Your task to perform on an android device: change the clock display to show seconds Image 0: 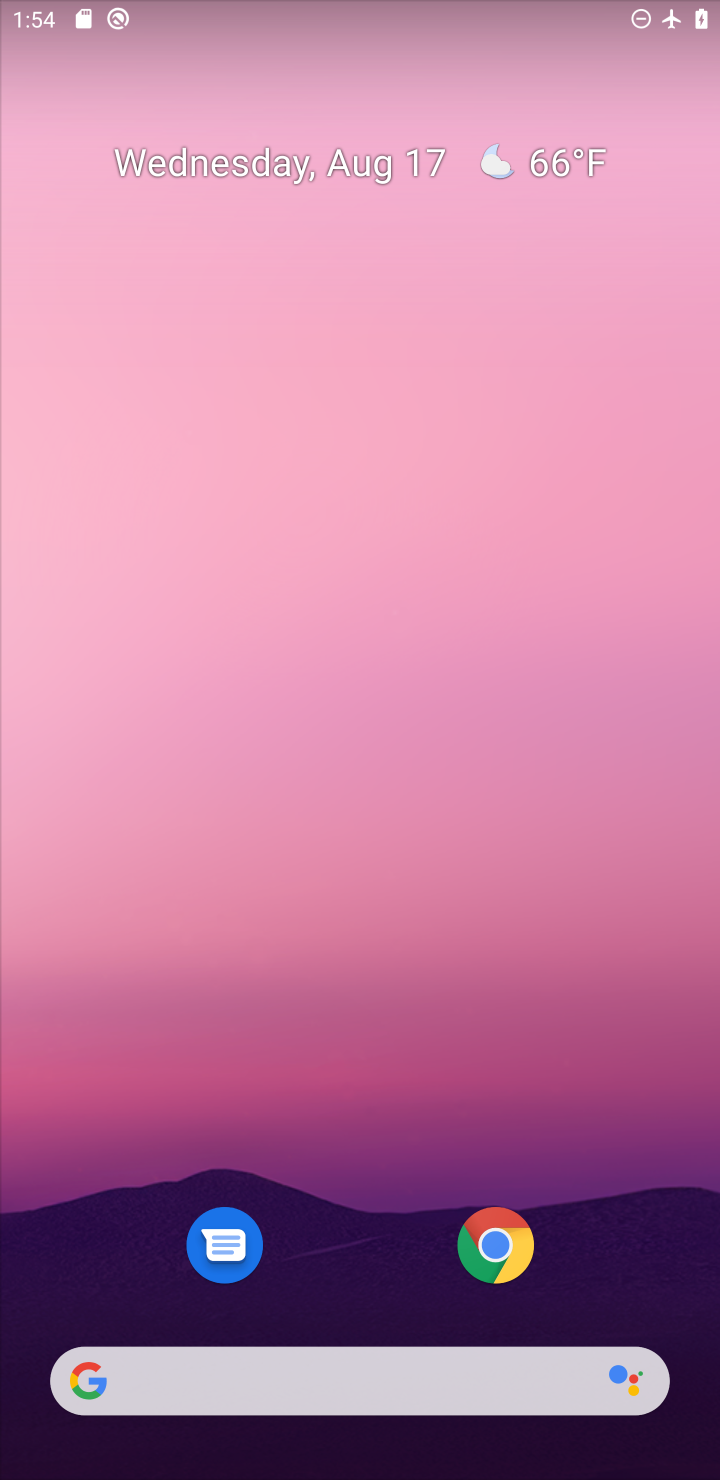
Step 0: drag from (393, 1233) to (412, 182)
Your task to perform on an android device: change the clock display to show seconds Image 1: 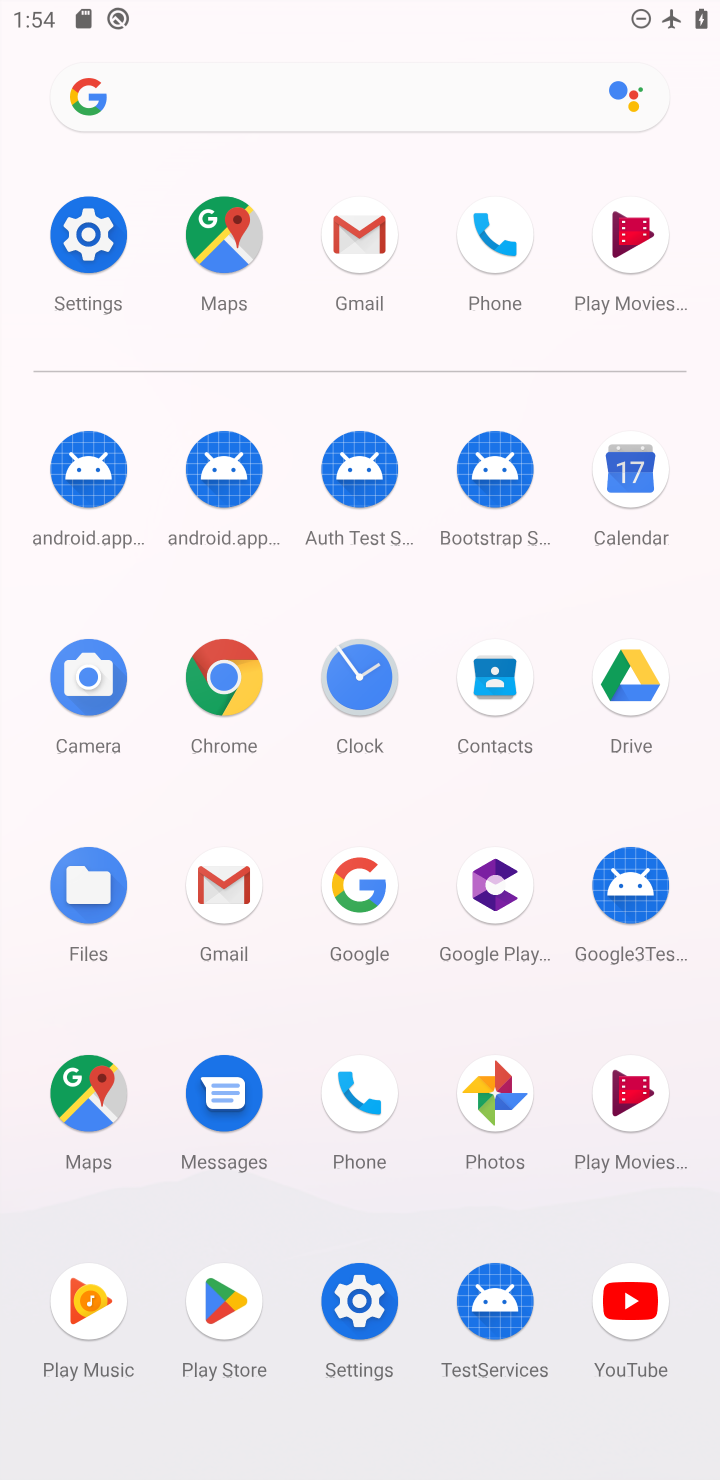
Step 1: click (368, 684)
Your task to perform on an android device: change the clock display to show seconds Image 2: 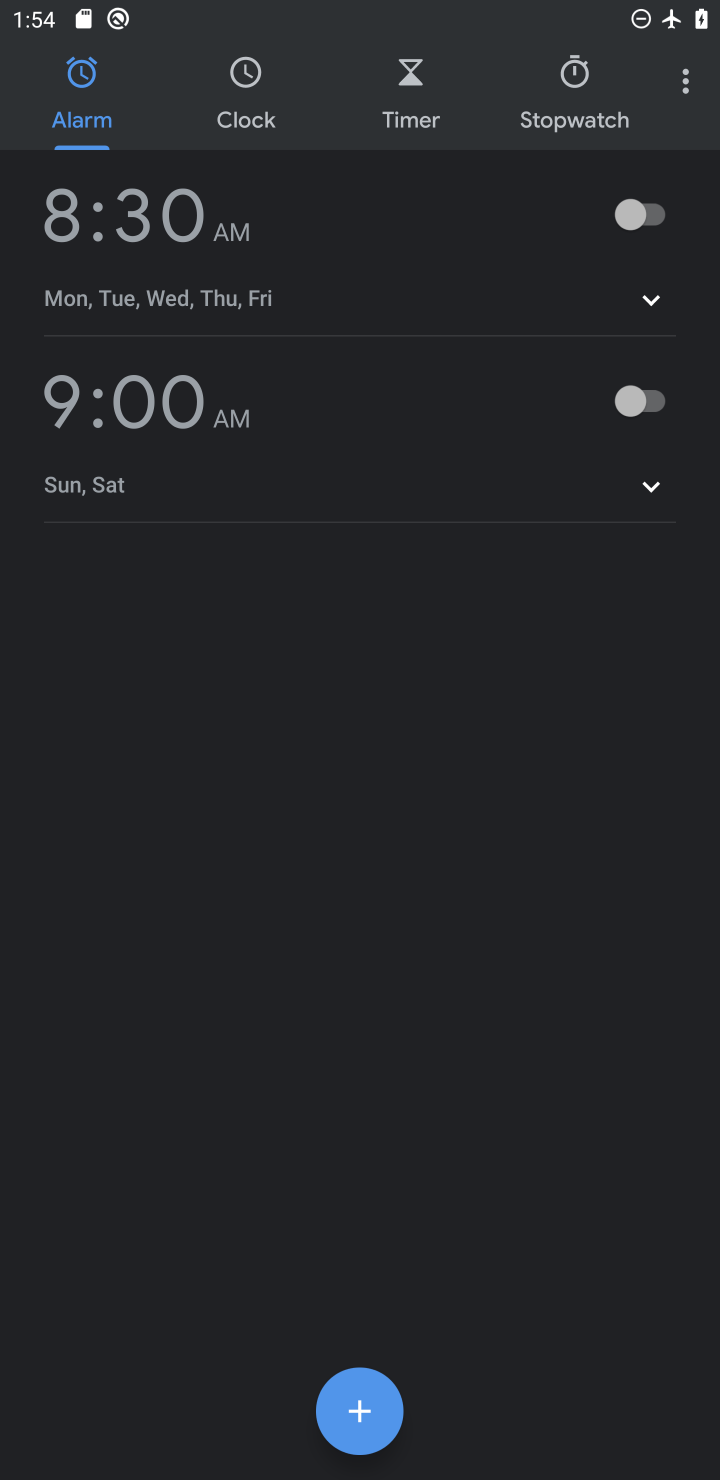
Step 2: click (691, 92)
Your task to perform on an android device: change the clock display to show seconds Image 3: 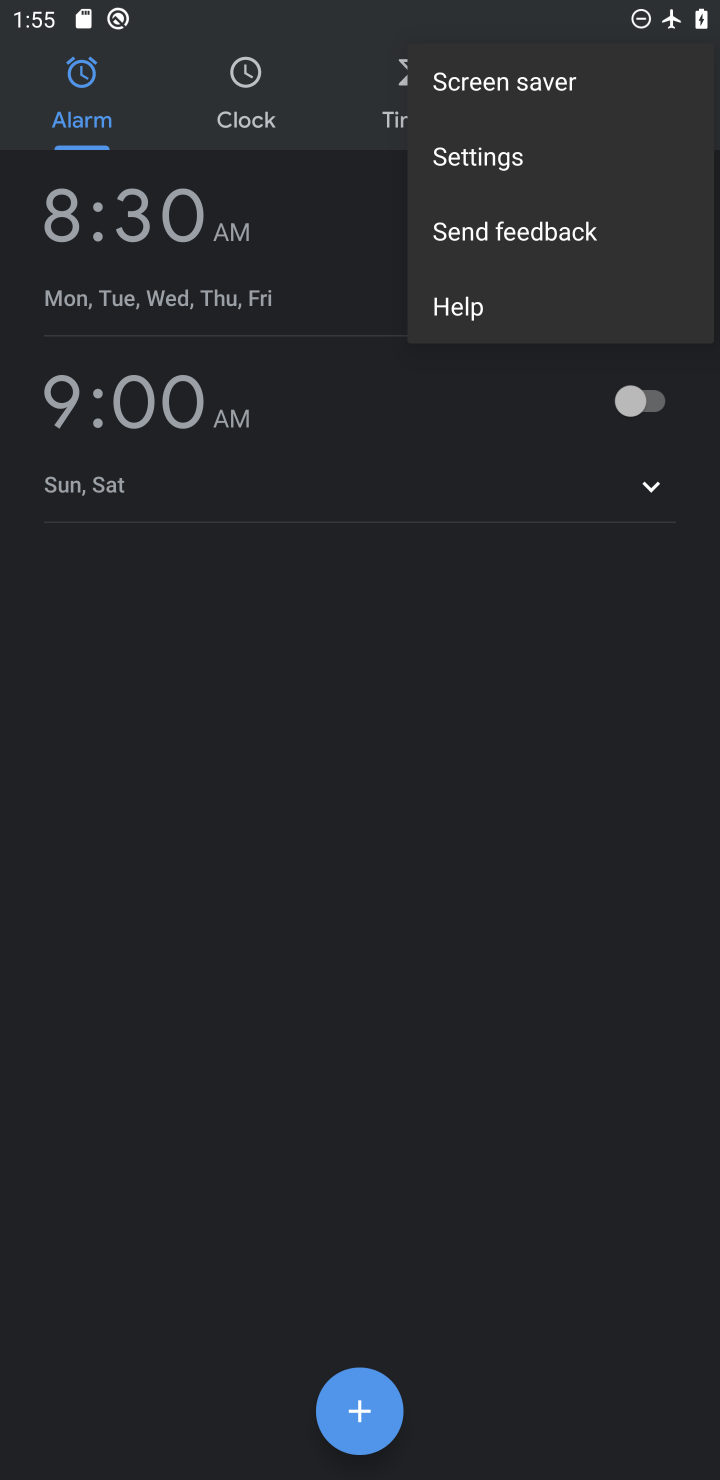
Step 3: click (500, 147)
Your task to perform on an android device: change the clock display to show seconds Image 4: 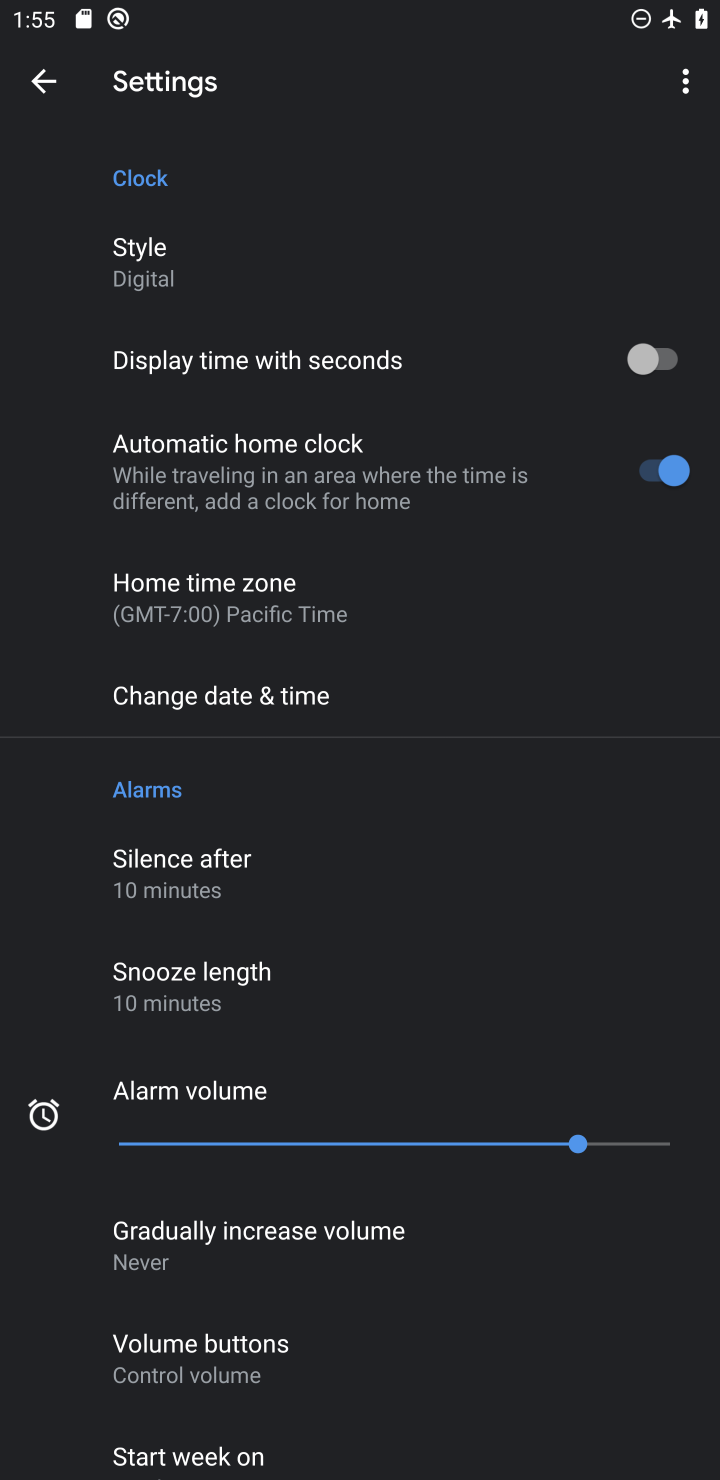
Step 4: click (658, 362)
Your task to perform on an android device: change the clock display to show seconds Image 5: 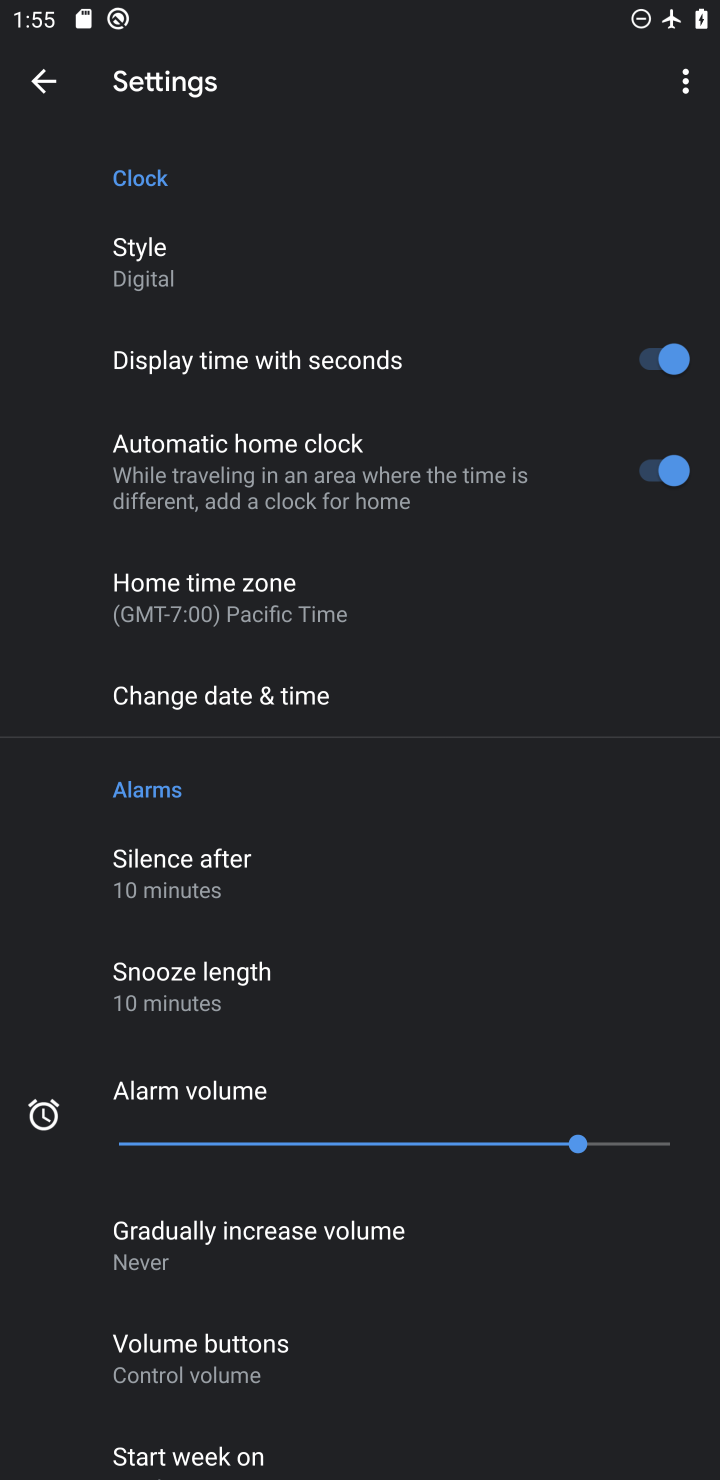
Step 5: task complete